Your task to perform on an android device: see creations saved in the google photos Image 0: 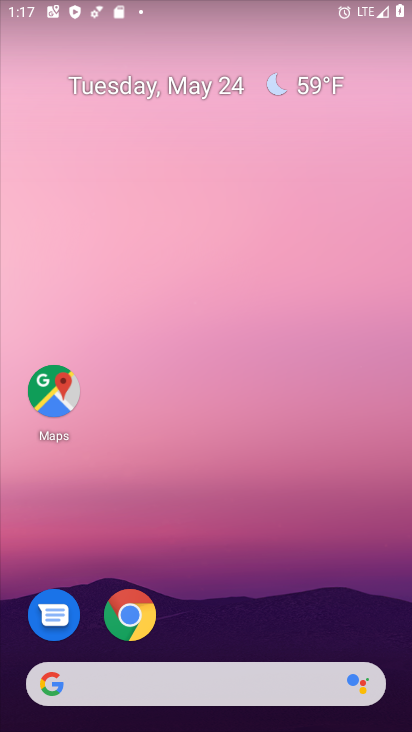
Step 0: drag from (237, 588) to (231, 95)
Your task to perform on an android device: see creations saved in the google photos Image 1: 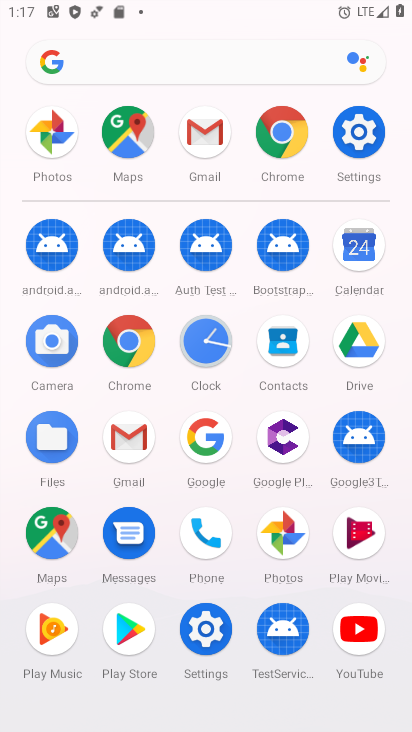
Step 1: drag from (5, 583) to (4, 180)
Your task to perform on an android device: see creations saved in the google photos Image 2: 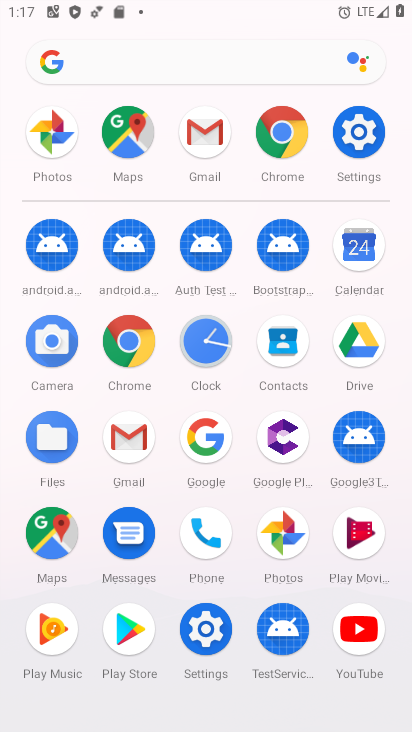
Step 2: click (283, 529)
Your task to perform on an android device: see creations saved in the google photos Image 3: 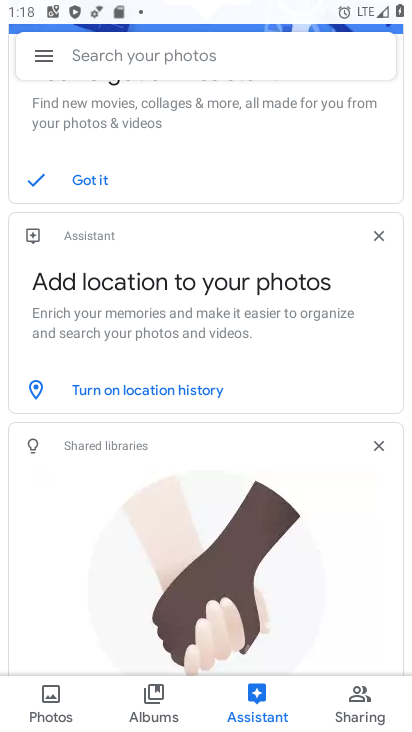
Step 3: click (29, 707)
Your task to perform on an android device: see creations saved in the google photos Image 4: 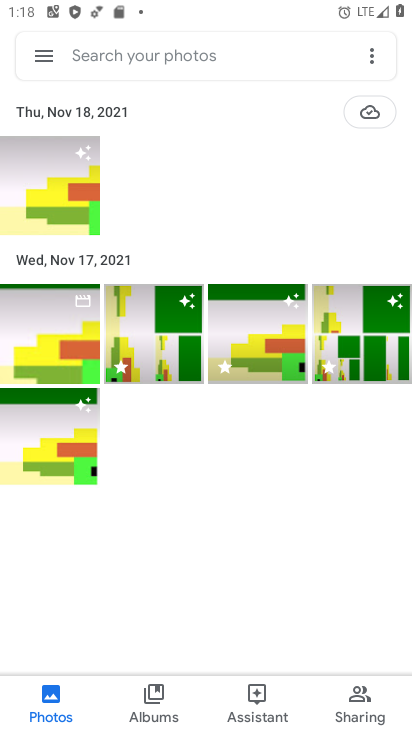
Step 4: task complete